Your task to perform on an android device: add a contact Image 0: 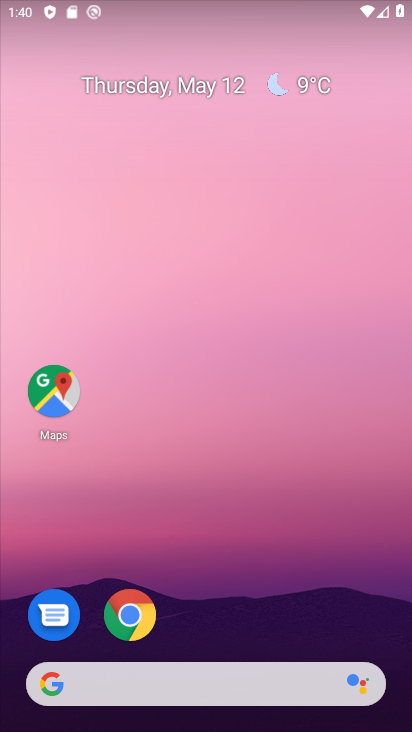
Step 0: drag from (232, 684) to (273, 103)
Your task to perform on an android device: add a contact Image 1: 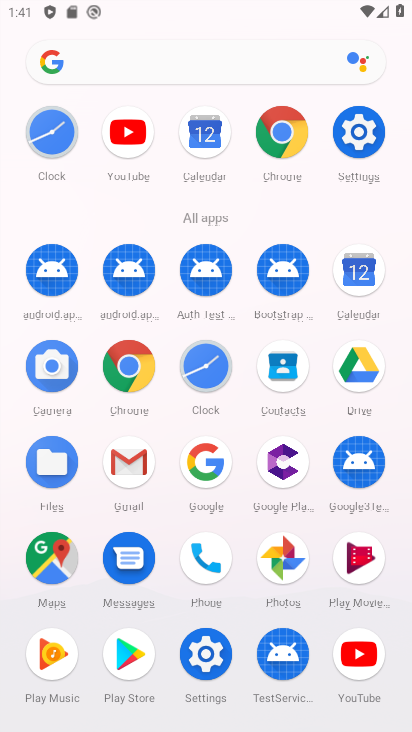
Step 1: click (285, 376)
Your task to perform on an android device: add a contact Image 2: 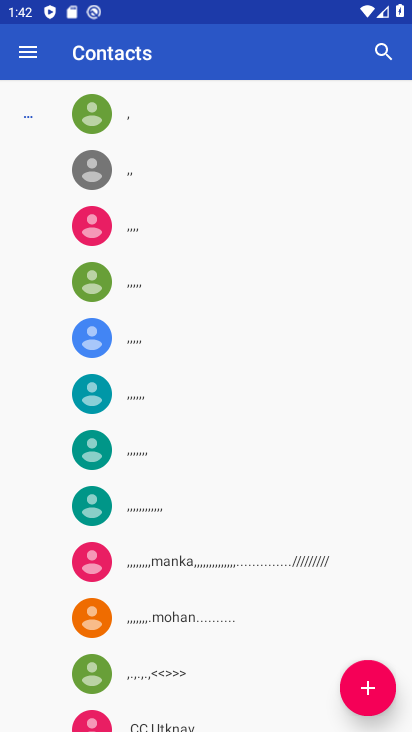
Step 2: click (367, 683)
Your task to perform on an android device: add a contact Image 3: 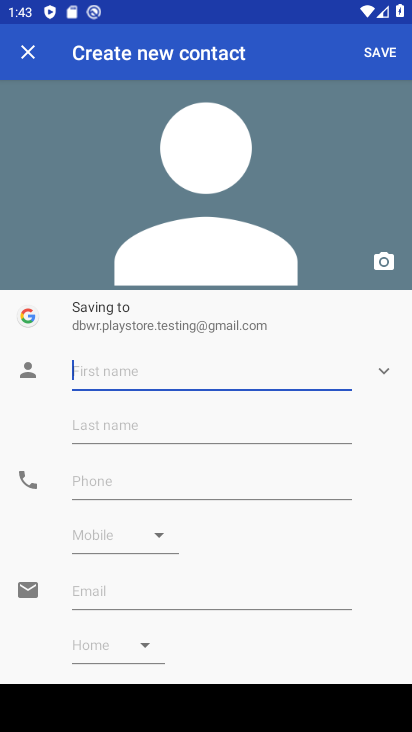
Step 3: type "fhjgghj"
Your task to perform on an android device: add a contact Image 4: 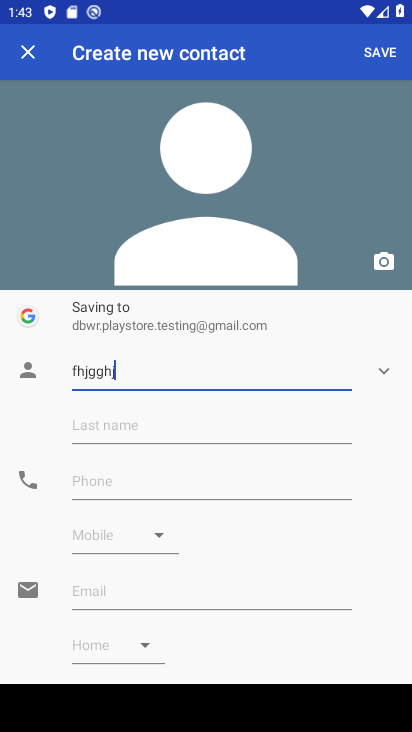
Step 4: click (164, 486)
Your task to perform on an android device: add a contact Image 5: 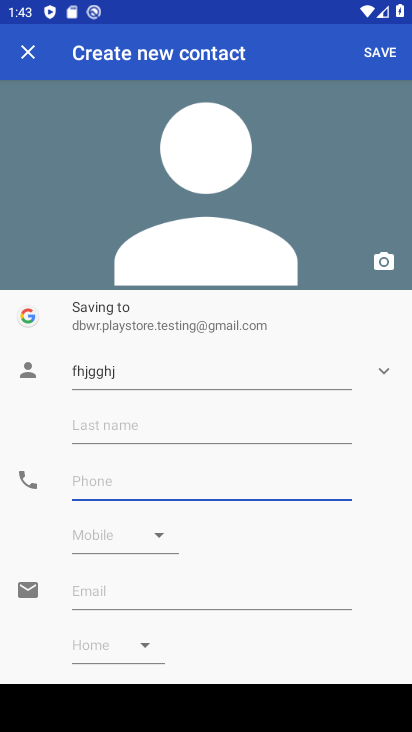
Step 5: type "6876879"
Your task to perform on an android device: add a contact Image 6: 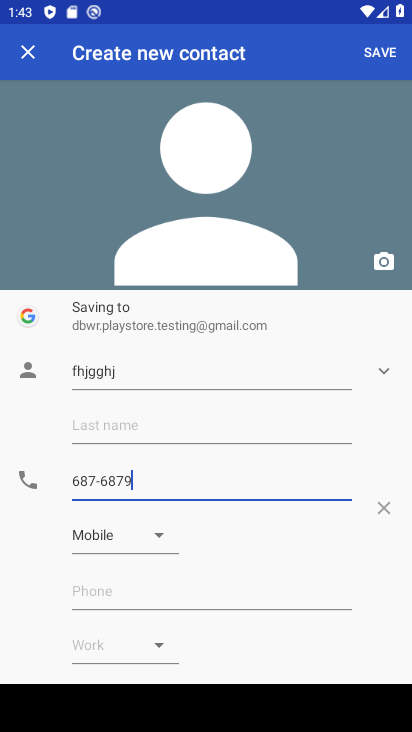
Step 6: click (376, 50)
Your task to perform on an android device: add a contact Image 7: 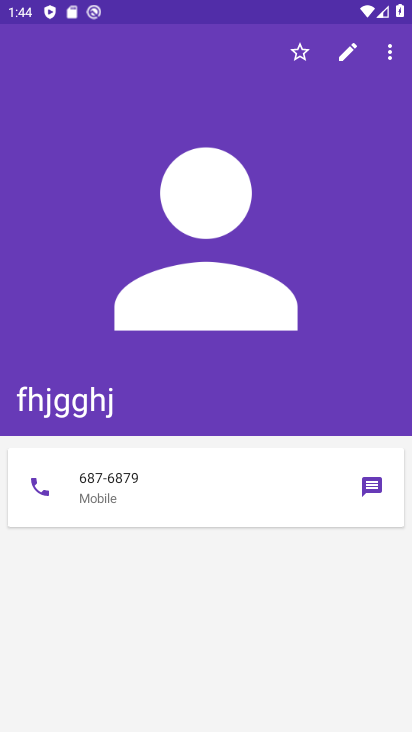
Step 7: task complete